Your task to perform on an android device: allow notifications from all sites in the chrome app Image 0: 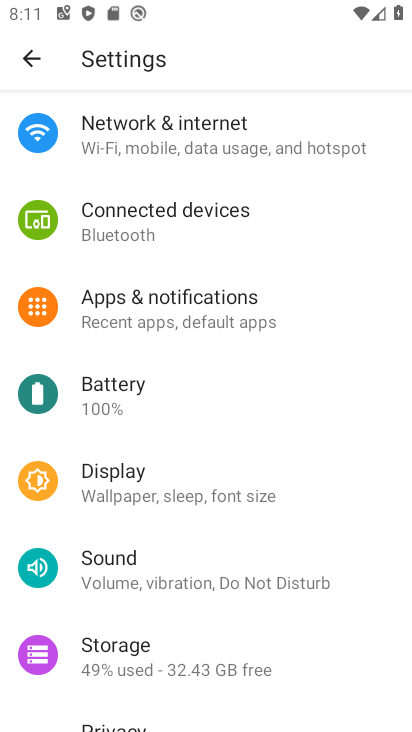
Step 0: press home button
Your task to perform on an android device: allow notifications from all sites in the chrome app Image 1: 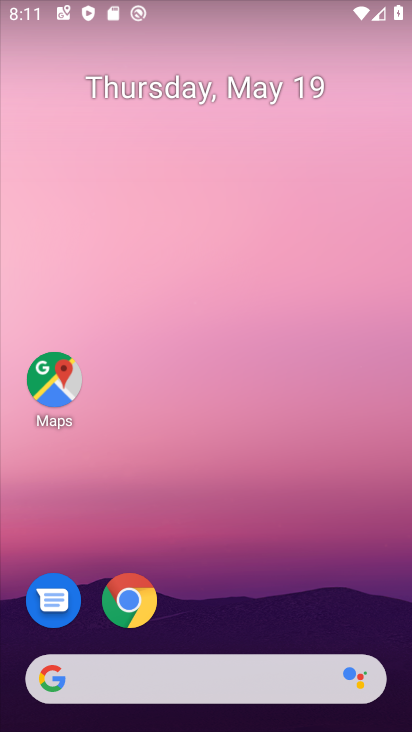
Step 1: click (127, 608)
Your task to perform on an android device: allow notifications from all sites in the chrome app Image 2: 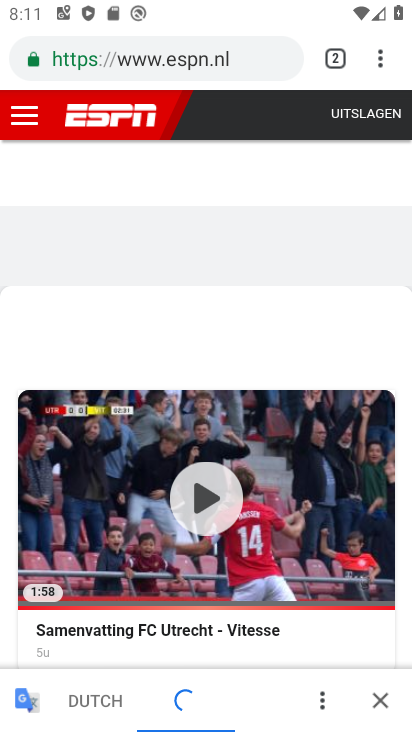
Step 2: click (378, 62)
Your task to perform on an android device: allow notifications from all sites in the chrome app Image 3: 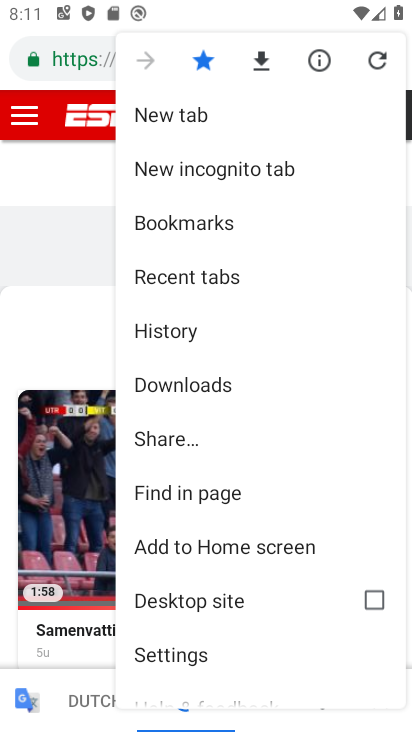
Step 3: click (179, 660)
Your task to perform on an android device: allow notifications from all sites in the chrome app Image 4: 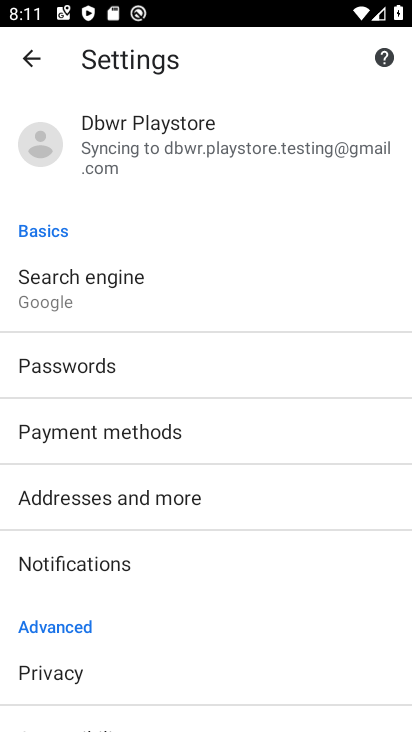
Step 4: drag from (141, 599) to (154, 166)
Your task to perform on an android device: allow notifications from all sites in the chrome app Image 5: 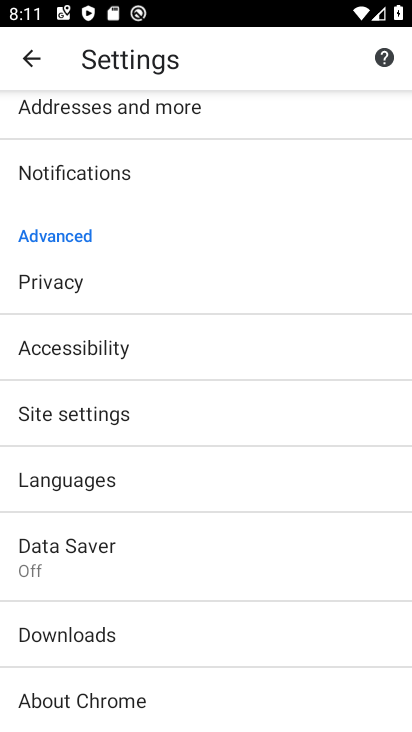
Step 5: click (88, 410)
Your task to perform on an android device: allow notifications from all sites in the chrome app Image 6: 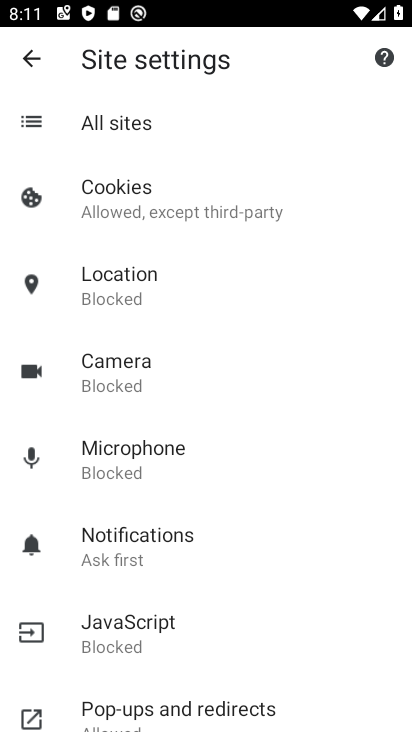
Step 6: click (136, 537)
Your task to perform on an android device: allow notifications from all sites in the chrome app Image 7: 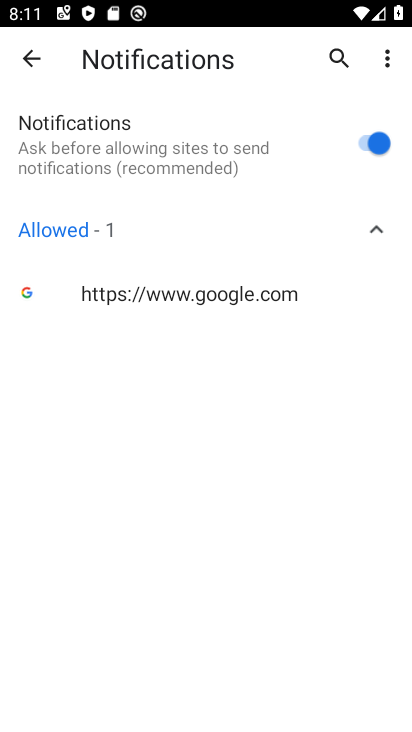
Step 7: task complete